Your task to perform on an android device: refresh tabs in the chrome app Image 0: 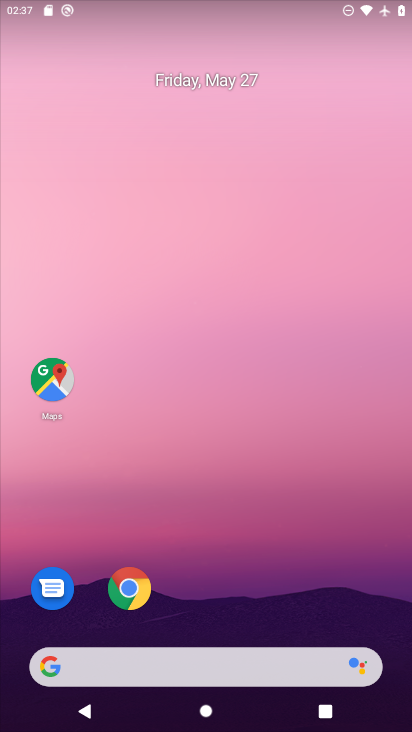
Step 0: click (130, 590)
Your task to perform on an android device: refresh tabs in the chrome app Image 1: 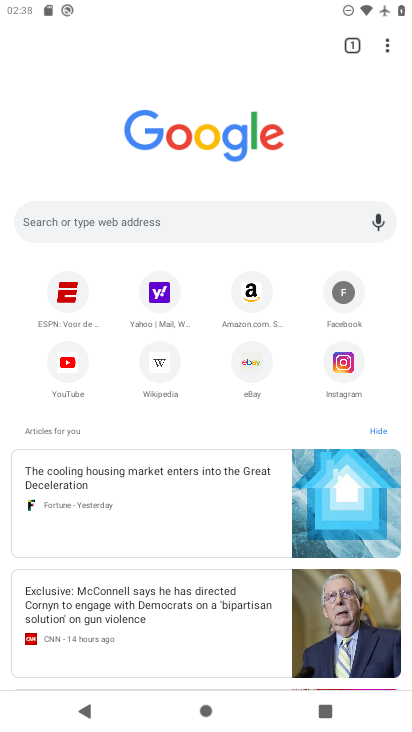
Step 1: click (385, 53)
Your task to perform on an android device: refresh tabs in the chrome app Image 2: 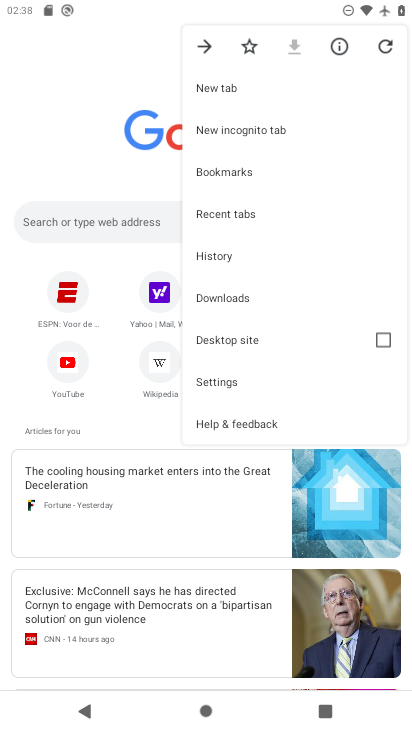
Step 2: click (381, 42)
Your task to perform on an android device: refresh tabs in the chrome app Image 3: 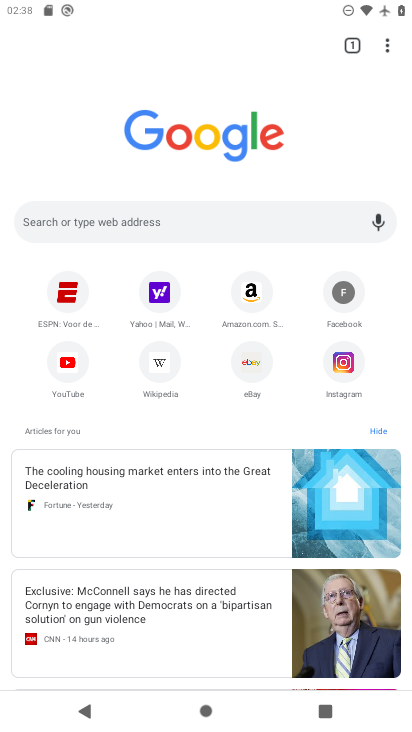
Step 3: task complete